Your task to perform on an android device: Search for 4k TVs on Best Buy. Image 0: 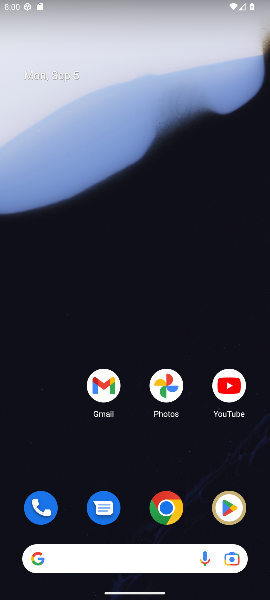
Step 0: click (171, 529)
Your task to perform on an android device: Search for 4k TVs on Best Buy. Image 1: 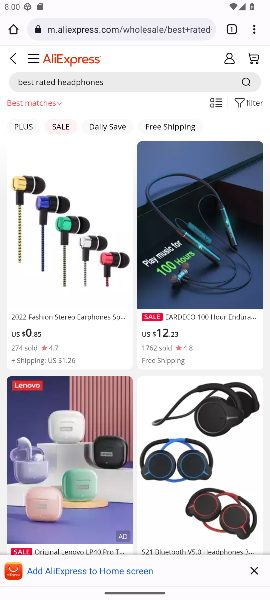
Step 1: click (151, 37)
Your task to perform on an android device: Search for 4k TVs on Best Buy. Image 2: 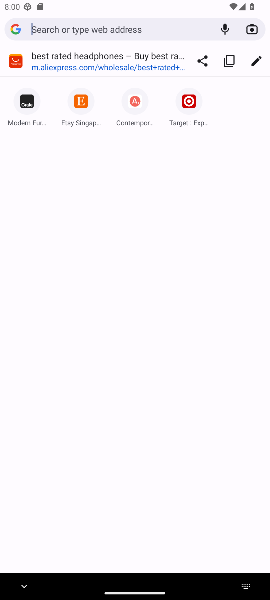
Step 2: type "Best Buy."
Your task to perform on an android device: Search for 4k TVs on Best Buy. Image 3: 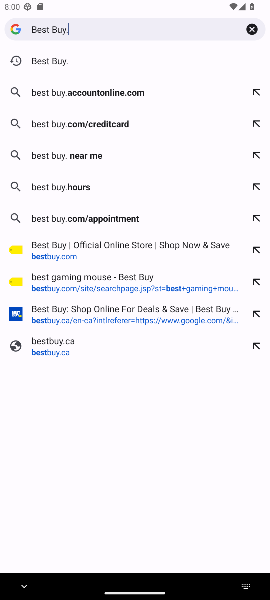
Step 3: click (64, 61)
Your task to perform on an android device: Search for 4k TVs on Best Buy. Image 4: 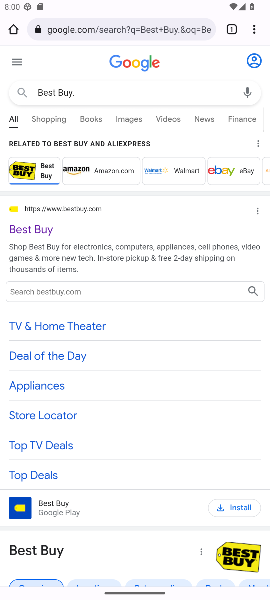
Step 4: click (35, 230)
Your task to perform on an android device: Search for 4k TVs on Best Buy. Image 5: 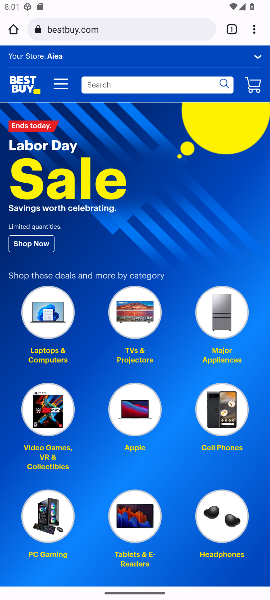
Step 5: click (105, 87)
Your task to perform on an android device: Search for 4k TVs on Best Buy. Image 6: 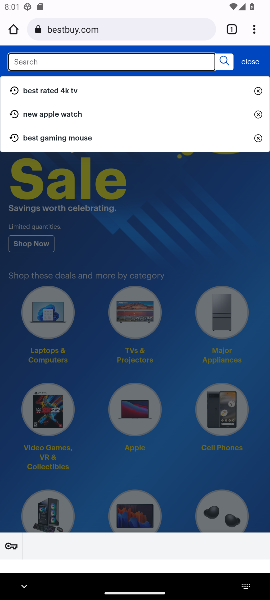
Step 6: type "4k TVs "
Your task to perform on an android device: Search for 4k TVs on Best Buy. Image 7: 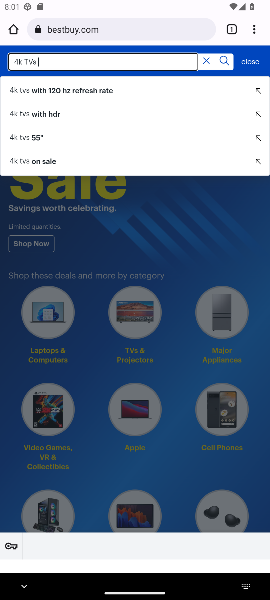
Step 7: click (222, 60)
Your task to perform on an android device: Search for 4k TVs on Best Buy. Image 8: 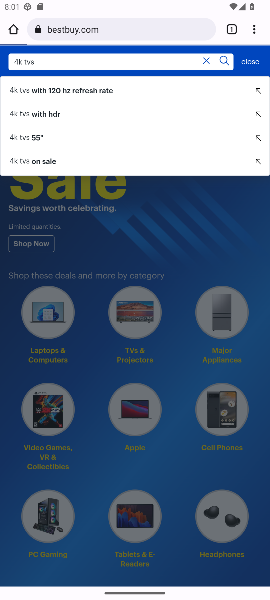
Step 8: click (221, 55)
Your task to perform on an android device: Search for 4k TVs on Best Buy. Image 9: 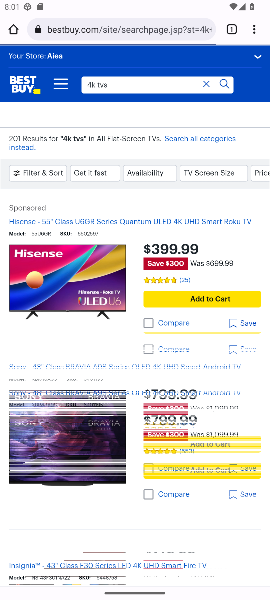
Step 9: task complete